Your task to perform on an android device: Open calendar and show me the fourth week of next month Image 0: 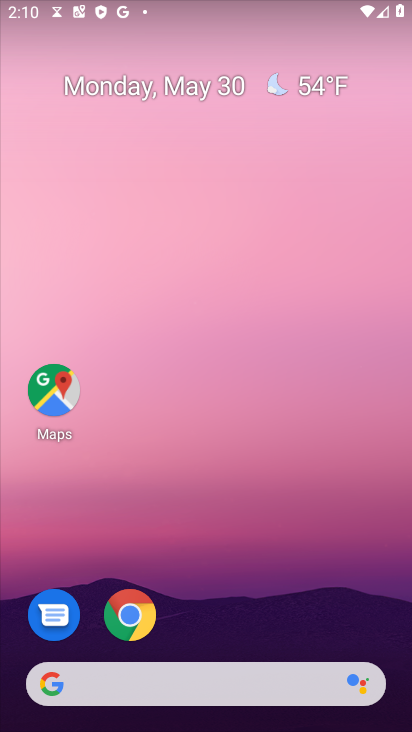
Step 0: drag from (274, 599) to (239, 145)
Your task to perform on an android device: Open calendar and show me the fourth week of next month Image 1: 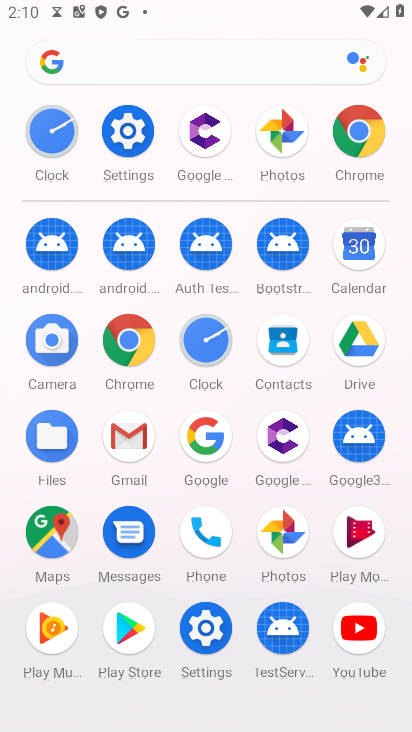
Step 1: click (341, 236)
Your task to perform on an android device: Open calendar and show me the fourth week of next month Image 2: 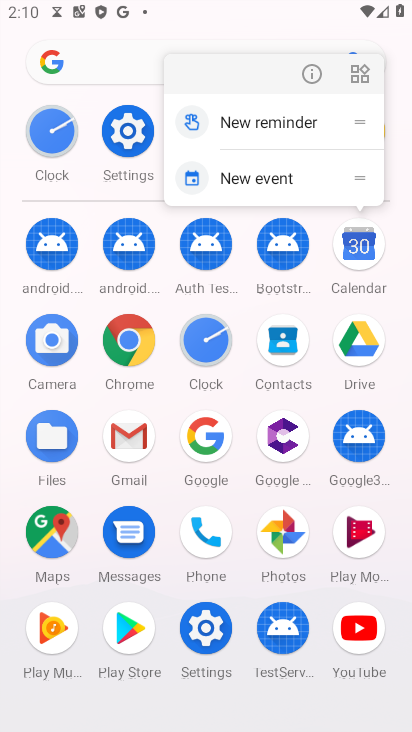
Step 2: click (340, 265)
Your task to perform on an android device: Open calendar and show me the fourth week of next month Image 3: 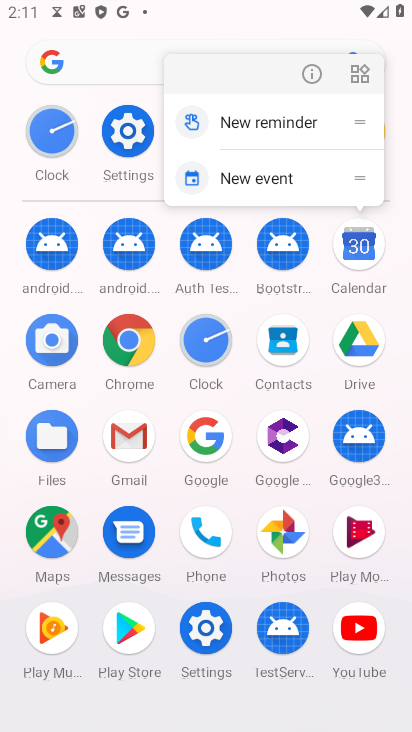
Step 3: click (356, 273)
Your task to perform on an android device: Open calendar and show me the fourth week of next month Image 4: 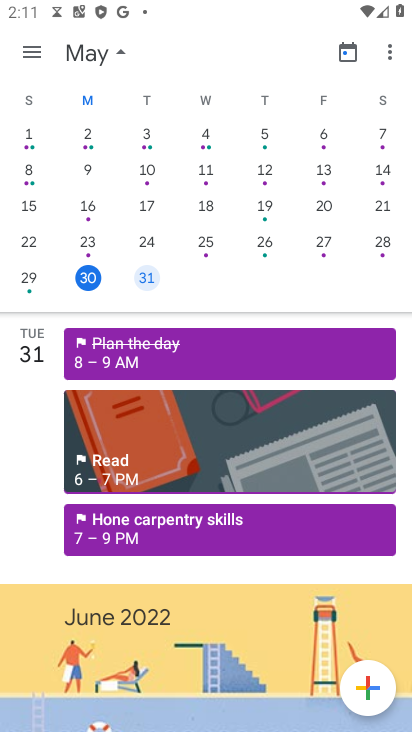
Step 4: drag from (393, 203) to (0, 249)
Your task to perform on an android device: Open calendar and show me the fourth week of next month Image 5: 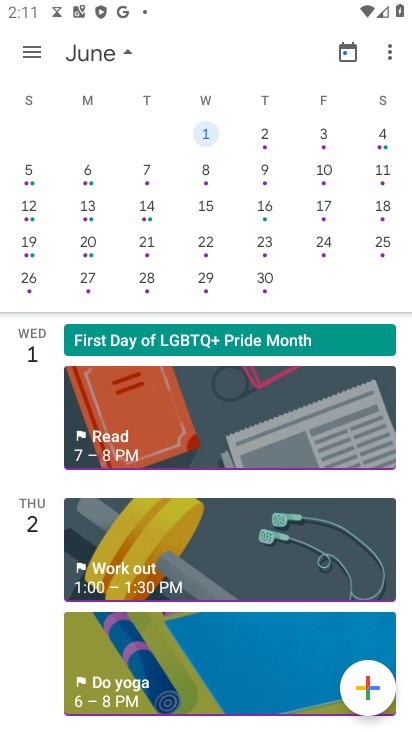
Step 5: click (148, 276)
Your task to perform on an android device: Open calendar and show me the fourth week of next month Image 6: 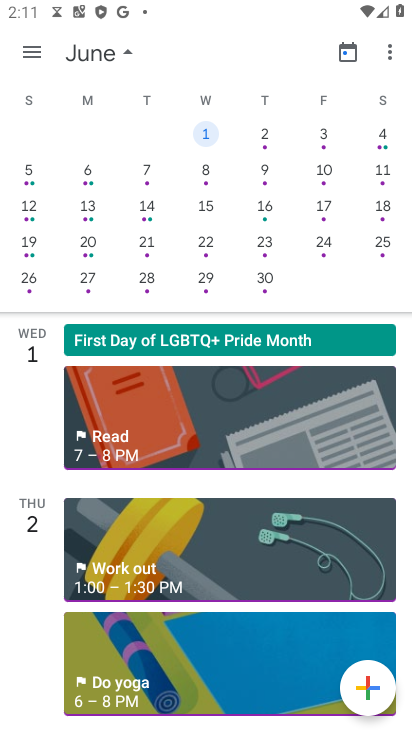
Step 6: task complete